Your task to perform on an android device: What's the price of the TCL TV? Image 0: 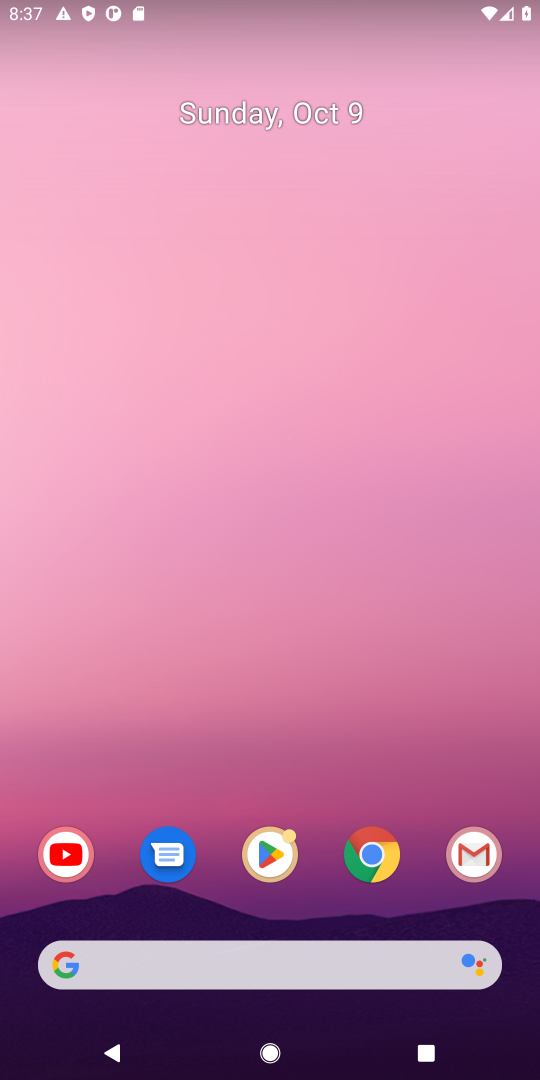
Step 0: click (259, 955)
Your task to perform on an android device: What's the price of the TCL TV? Image 1: 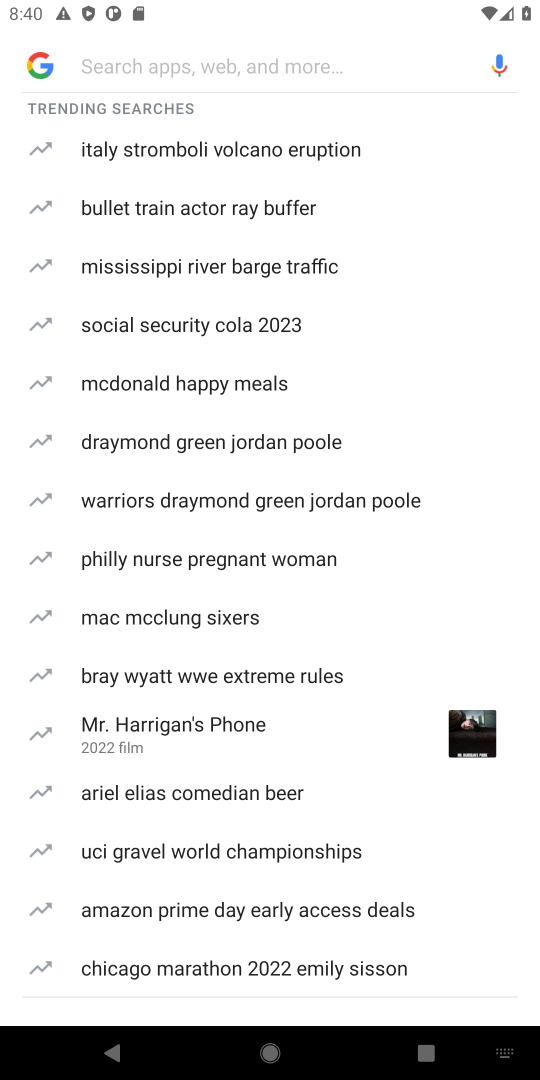
Step 1: type "What's the price of the TCL TV"
Your task to perform on an android device: What's the price of the TCL TV? Image 2: 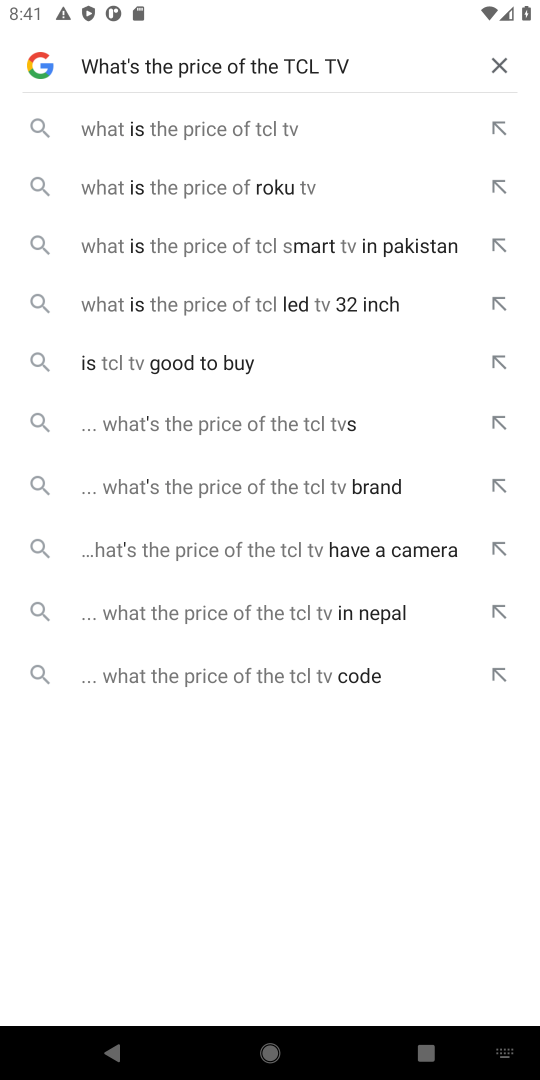
Step 2: click (235, 135)
Your task to perform on an android device: What's the price of the TCL TV? Image 3: 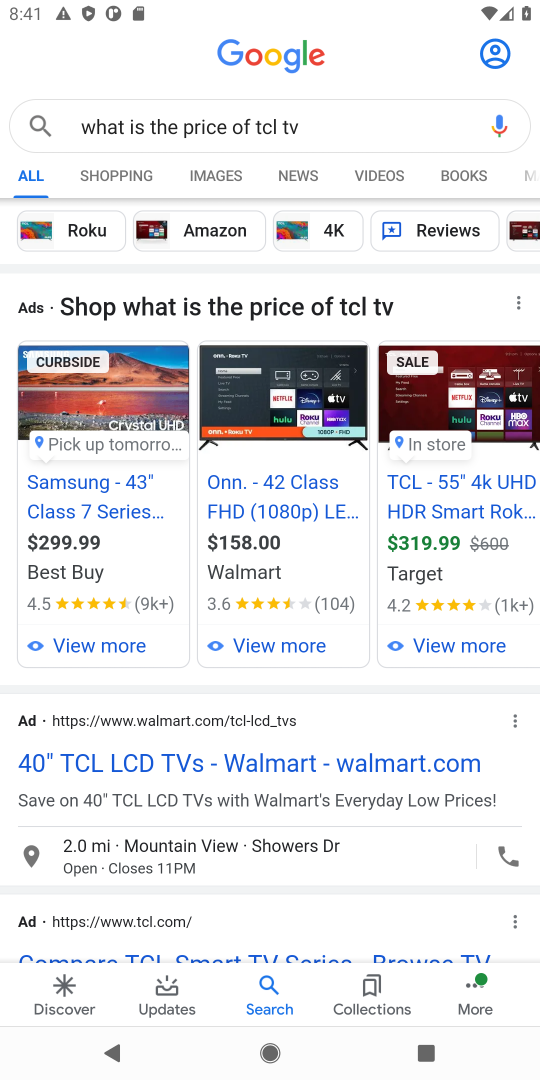
Step 3: task complete